Your task to perform on an android device: Search for pizza restaurants on Maps Image 0: 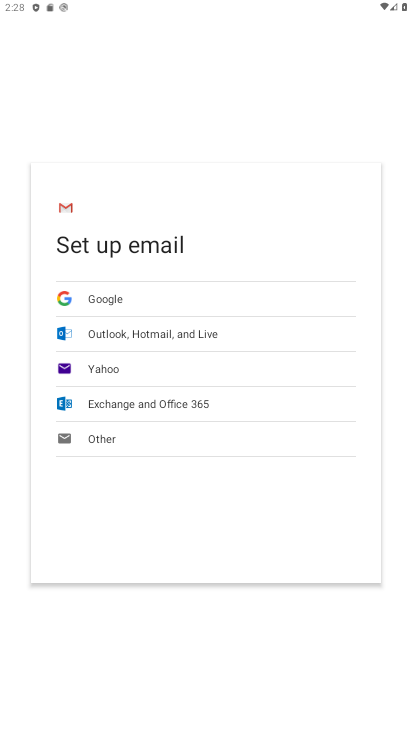
Step 0: drag from (285, 654) to (279, 124)
Your task to perform on an android device: Search for pizza restaurants on Maps Image 1: 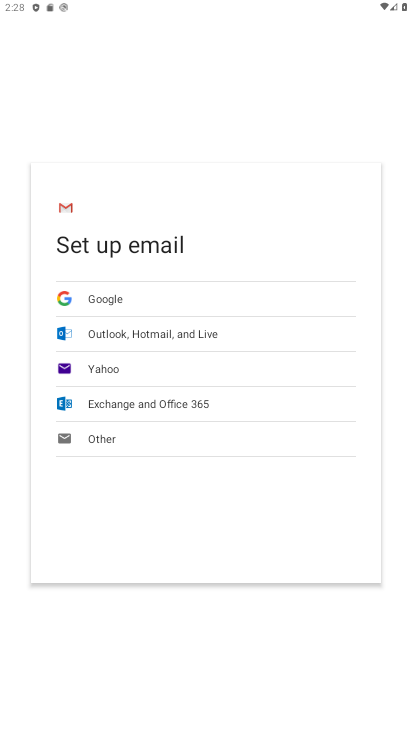
Step 1: press home button
Your task to perform on an android device: Search for pizza restaurants on Maps Image 2: 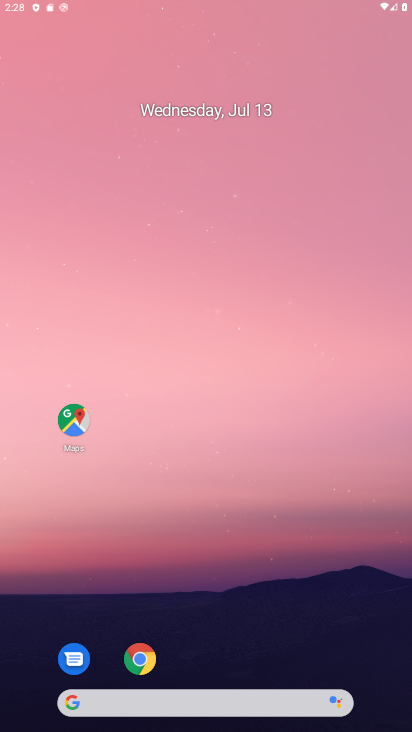
Step 2: drag from (308, 388) to (304, 146)
Your task to perform on an android device: Search for pizza restaurants on Maps Image 3: 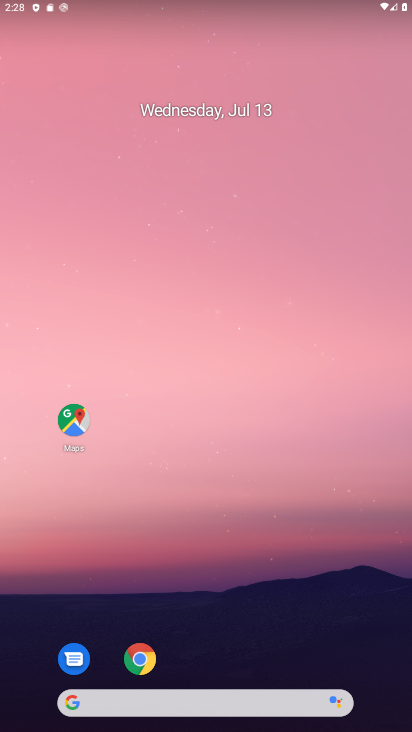
Step 3: drag from (229, 564) to (229, 115)
Your task to perform on an android device: Search for pizza restaurants on Maps Image 4: 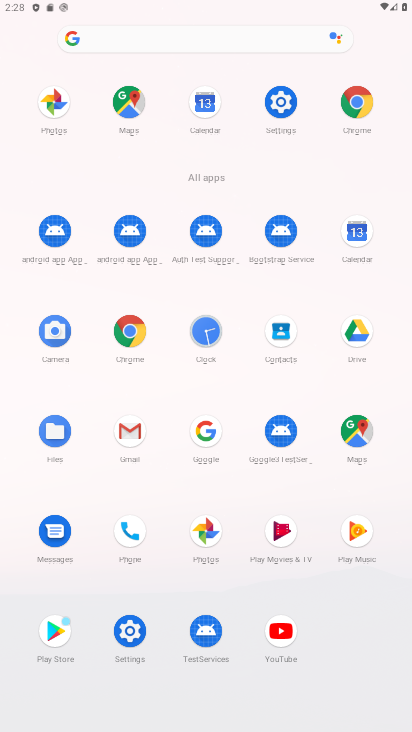
Step 4: click (359, 421)
Your task to perform on an android device: Search for pizza restaurants on Maps Image 5: 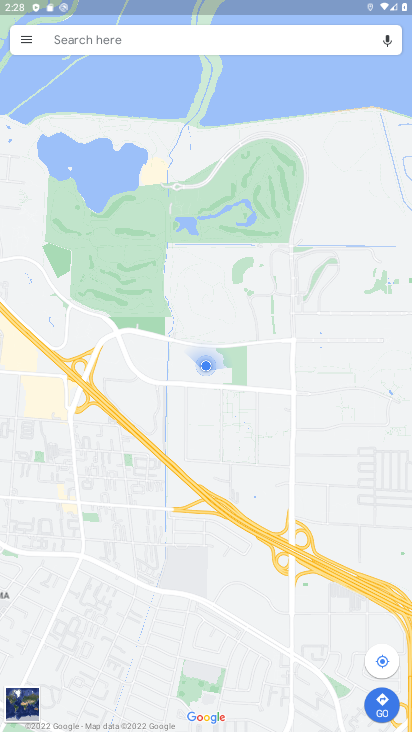
Step 5: click (149, 38)
Your task to perform on an android device: Search for pizza restaurants on Maps Image 6: 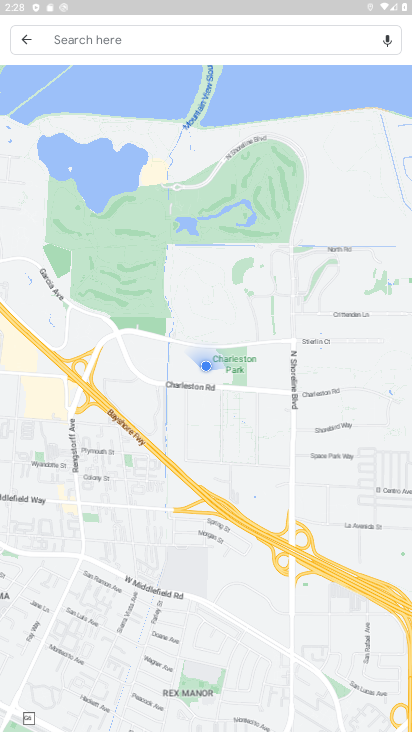
Step 6: type " pizza restaurants "
Your task to perform on an android device: Search for pizza restaurants on Maps Image 7: 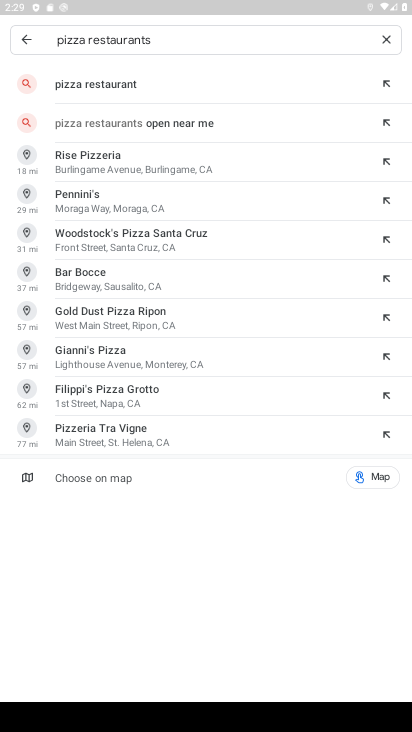
Step 7: click (119, 77)
Your task to perform on an android device: Search for pizza restaurants on Maps Image 8: 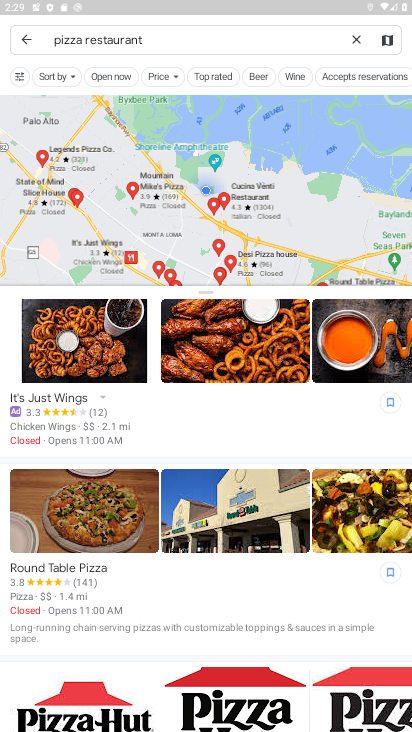
Step 8: task complete